Your task to perform on an android device: turn off location Image 0: 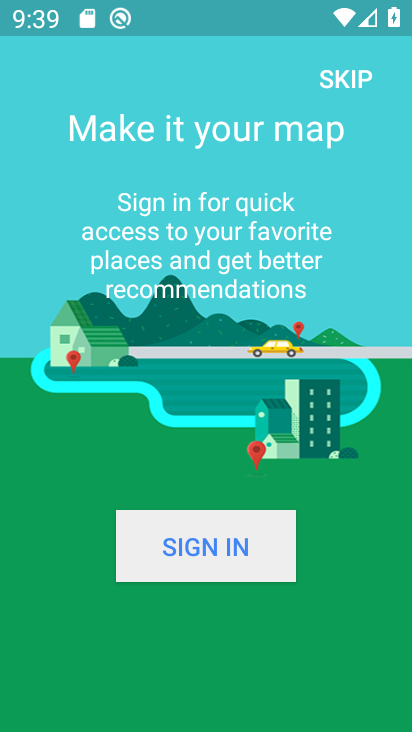
Step 0: press home button
Your task to perform on an android device: turn off location Image 1: 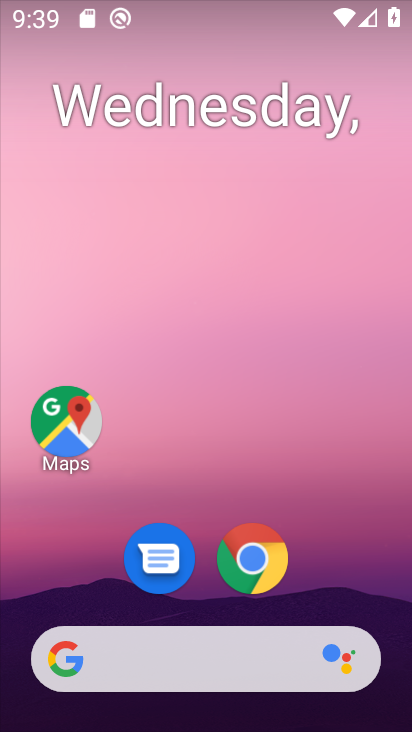
Step 1: drag from (347, 576) to (351, 142)
Your task to perform on an android device: turn off location Image 2: 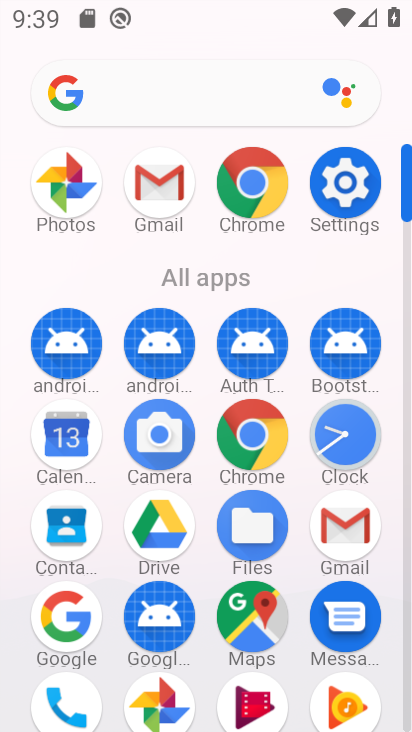
Step 2: click (346, 203)
Your task to perform on an android device: turn off location Image 3: 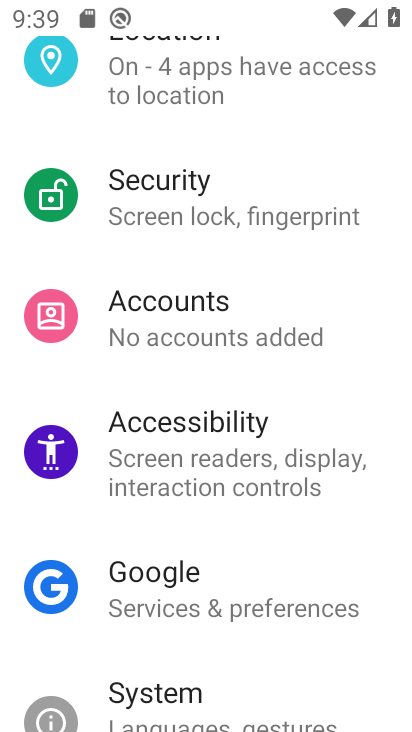
Step 3: drag from (371, 283) to (373, 360)
Your task to perform on an android device: turn off location Image 4: 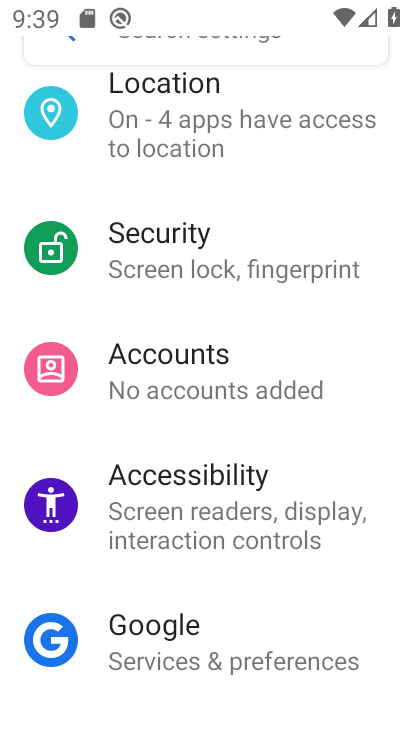
Step 4: drag from (382, 252) to (382, 362)
Your task to perform on an android device: turn off location Image 5: 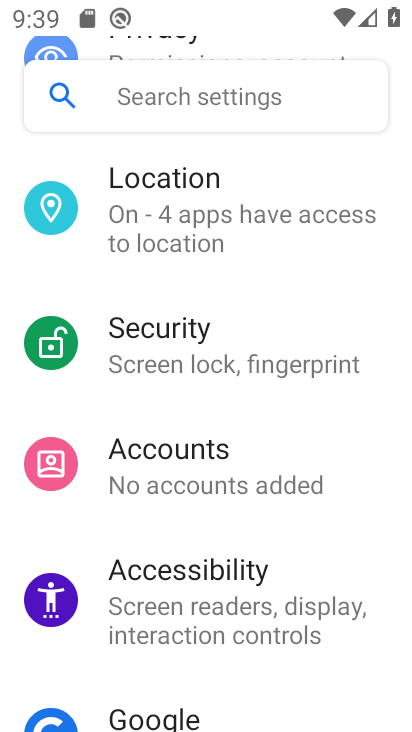
Step 5: drag from (380, 253) to (371, 352)
Your task to perform on an android device: turn off location Image 6: 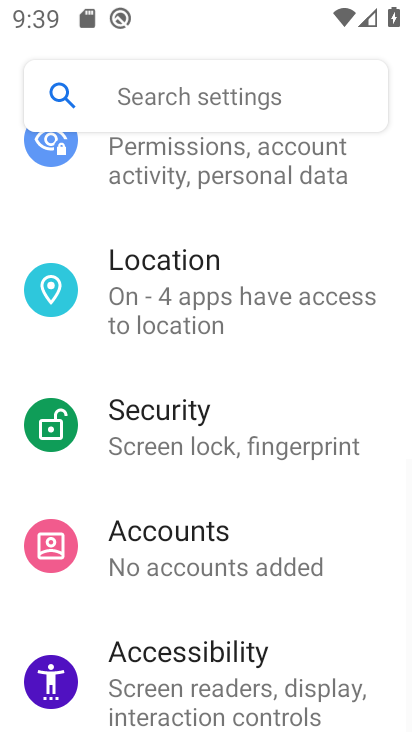
Step 6: drag from (375, 231) to (363, 366)
Your task to perform on an android device: turn off location Image 7: 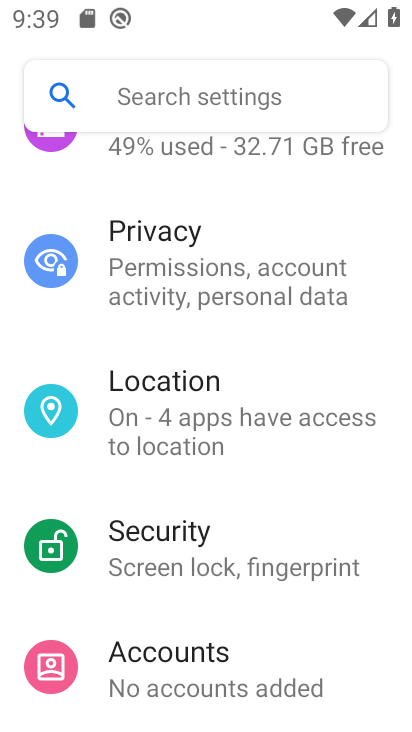
Step 7: drag from (369, 216) to (369, 355)
Your task to perform on an android device: turn off location Image 8: 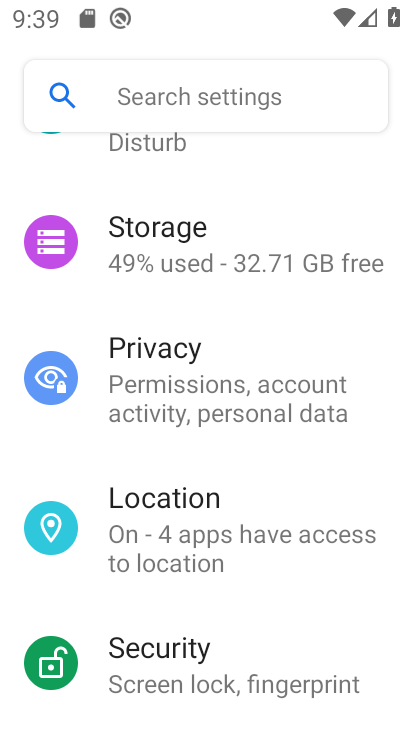
Step 8: click (309, 522)
Your task to perform on an android device: turn off location Image 9: 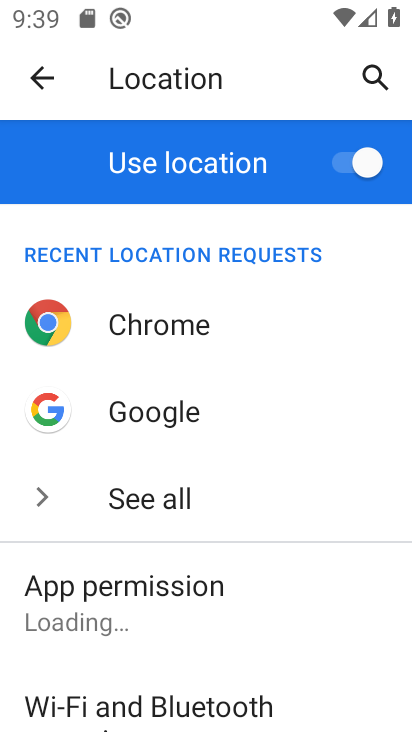
Step 9: click (377, 177)
Your task to perform on an android device: turn off location Image 10: 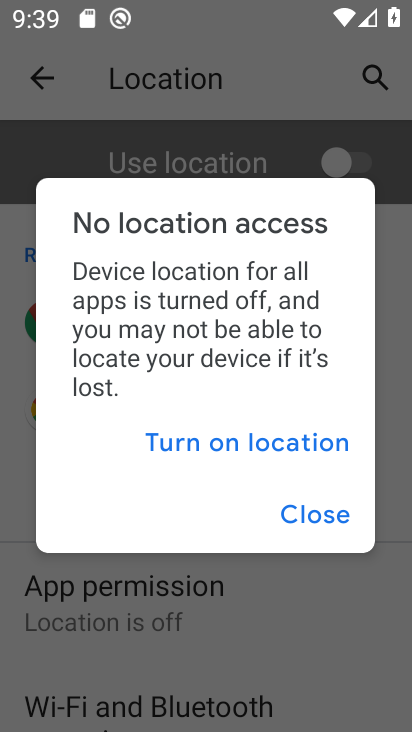
Step 10: task complete